Your task to perform on an android device: set the stopwatch Image 0: 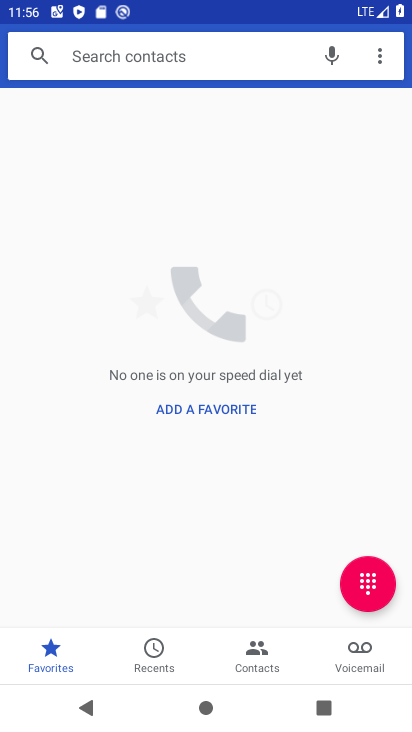
Step 0: press home button
Your task to perform on an android device: set the stopwatch Image 1: 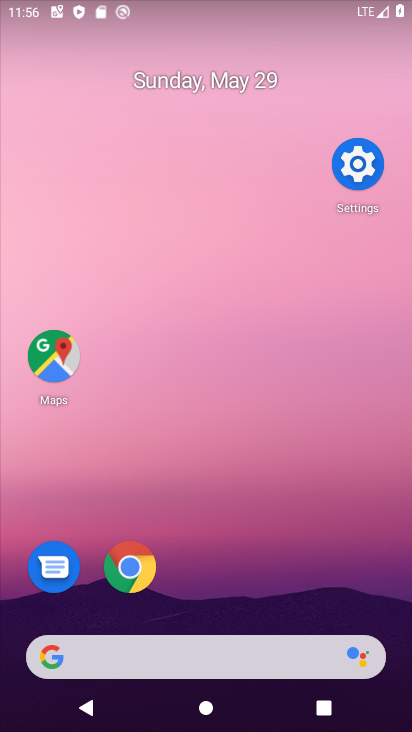
Step 1: drag from (299, 556) to (268, 143)
Your task to perform on an android device: set the stopwatch Image 2: 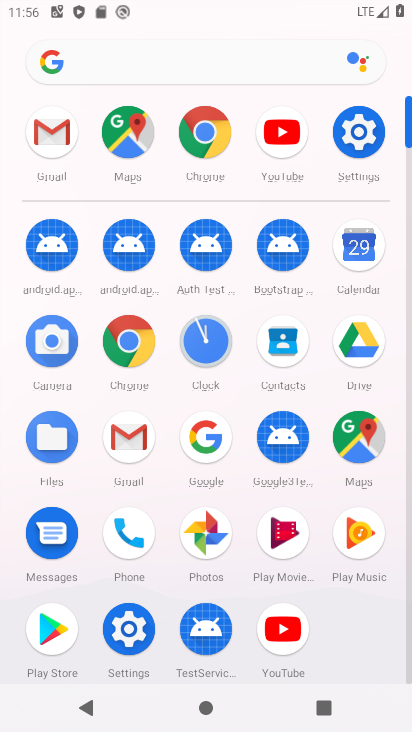
Step 2: click (203, 346)
Your task to perform on an android device: set the stopwatch Image 3: 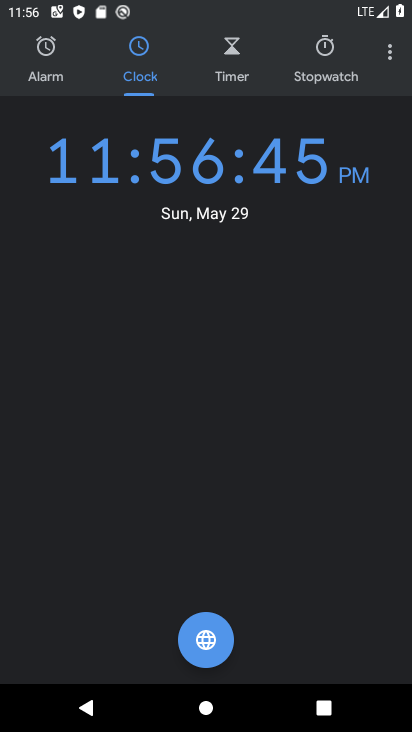
Step 3: click (316, 60)
Your task to perform on an android device: set the stopwatch Image 4: 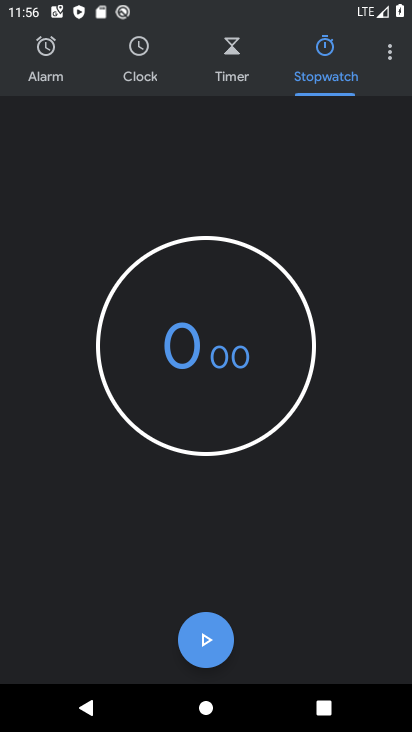
Step 4: click (201, 634)
Your task to perform on an android device: set the stopwatch Image 5: 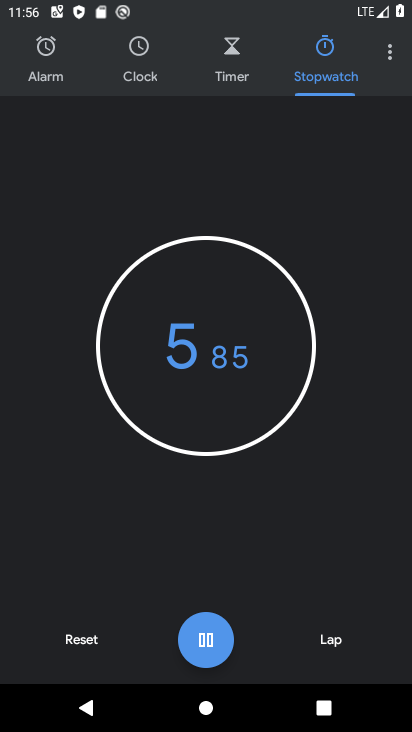
Step 5: click (204, 651)
Your task to perform on an android device: set the stopwatch Image 6: 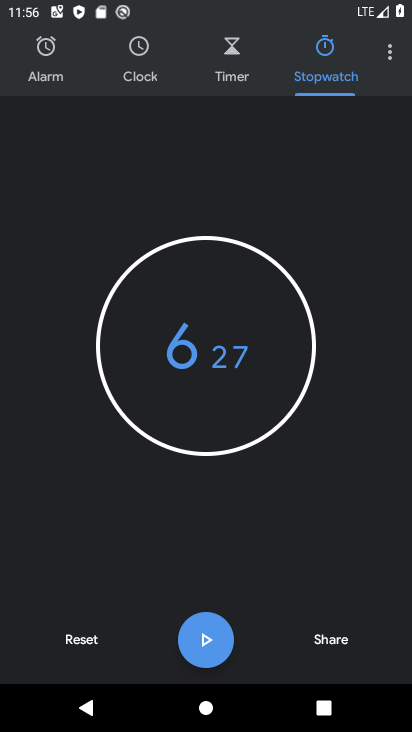
Step 6: task complete